Your task to perform on an android device: Search for "bose soundlink" on newegg.com, select the first entry, and add it to the cart. Image 0: 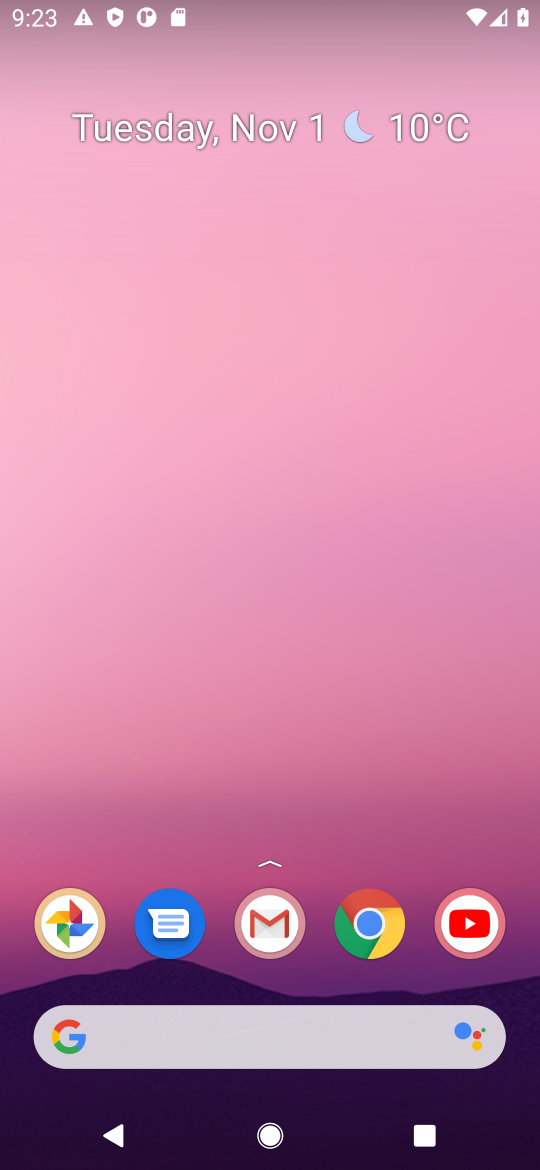
Step 0: drag from (309, 905) to (281, 160)
Your task to perform on an android device: Search for "bose soundlink" on newegg.com, select the first entry, and add it to the cart. Image 1: 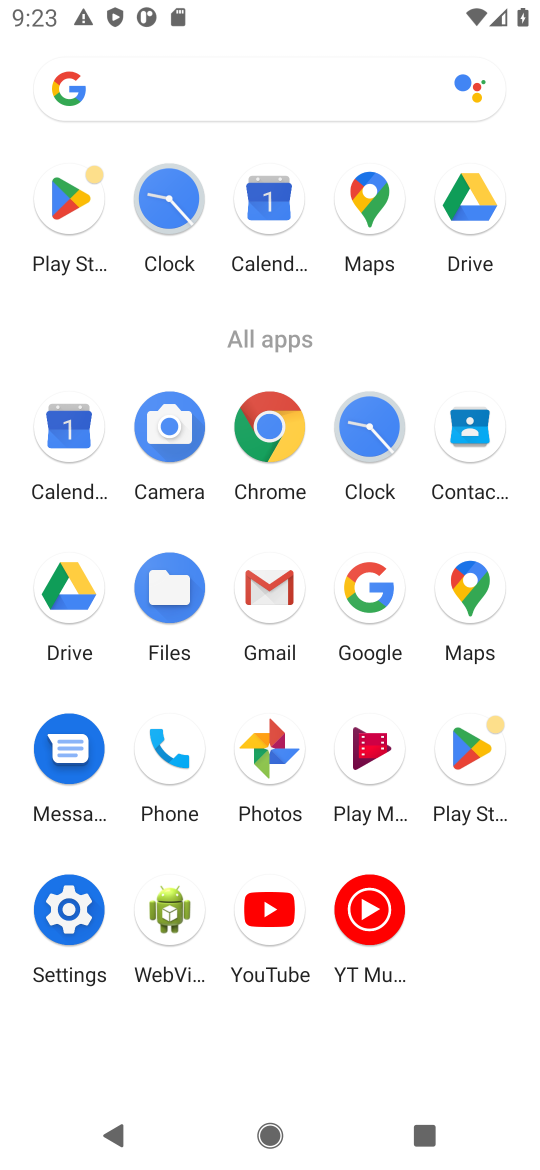
Step 1: click (263, 424)
Your task to perform on an android device: Search for "bose soundlink" on newegg.com, select the first entry, and add it to the cart. Image 2: 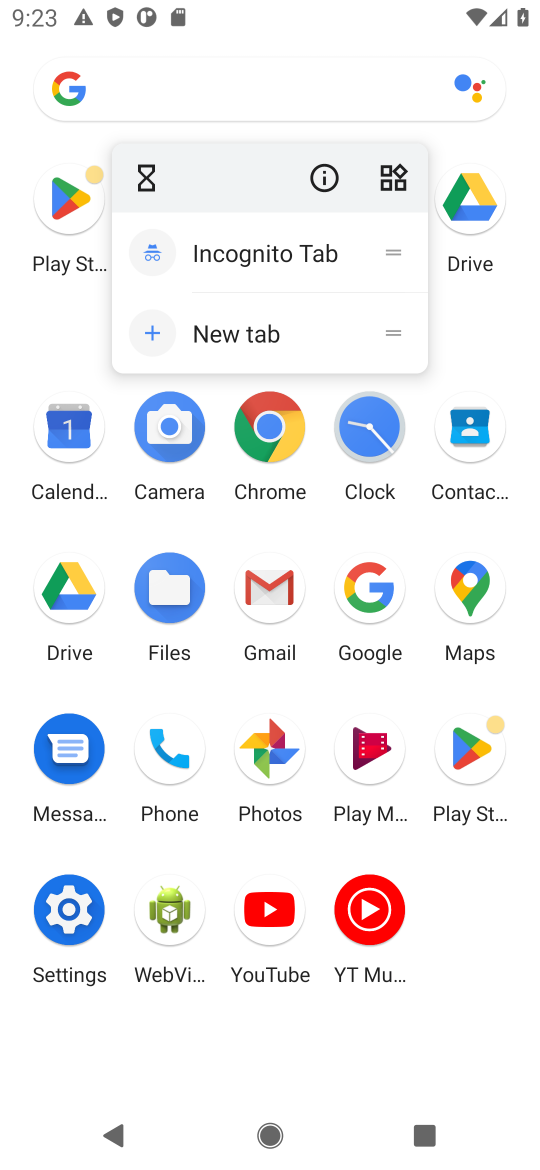
Step 2: click (271, 434)
Your task to perform on an android device: Search for "bose soundlink" on newegg.com, select the first entry, and add it to the cart. Image 3: 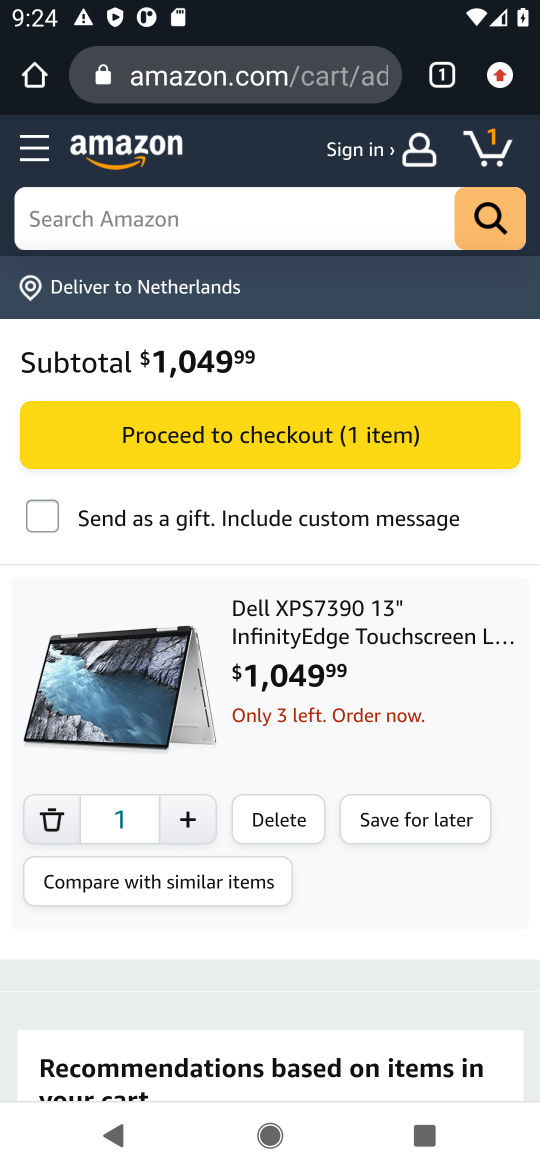
Step 3: click (262, 64)
Your task to perform on an android device: Search for "bose soundlink" on newegg.com, select the first entry, and add it to the cart. Image 4: 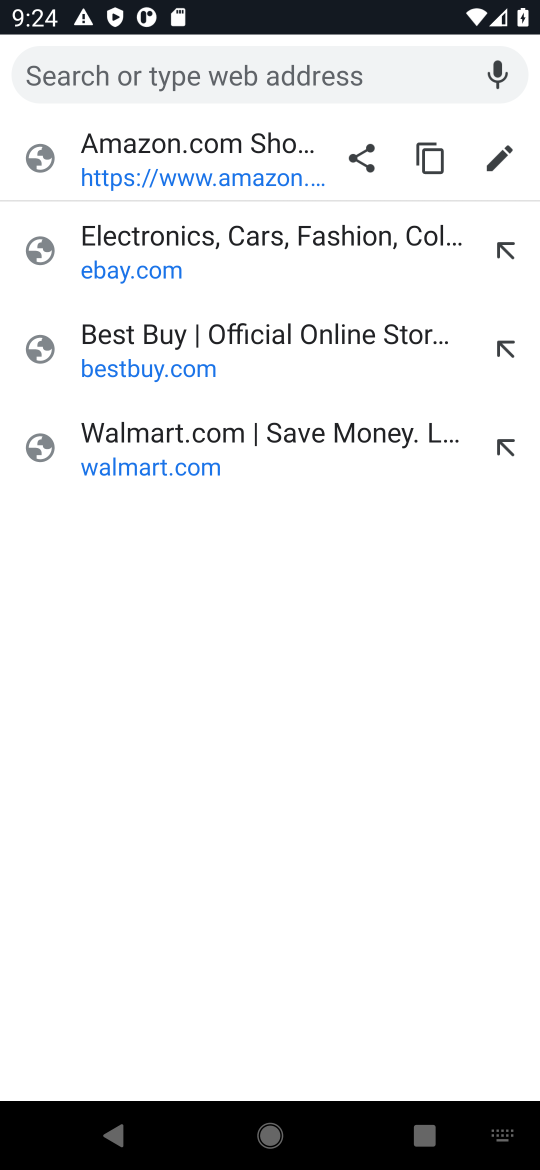
Step 4: type "newegg.com"
Your task to perform on an android device: Search for "bose soundlink" on newegg.com, select the first entry, and add it to the cart. Image 5: 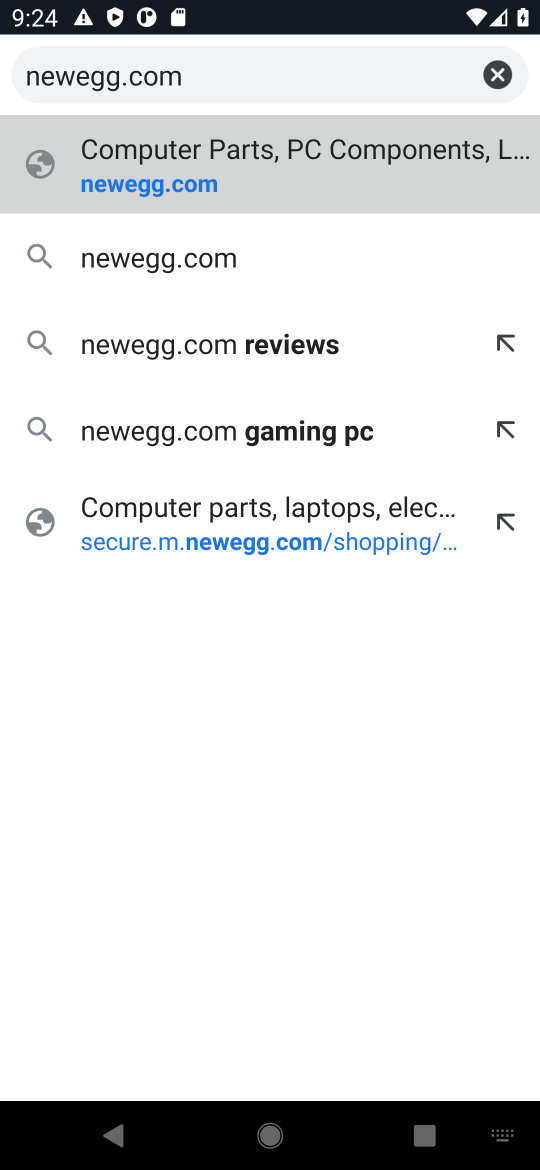
Step 5: press enter
Your task to perform on an android device: Search for "bose soundlink" on newegg.com, select the first entry, and add it to the cart. Image 6: 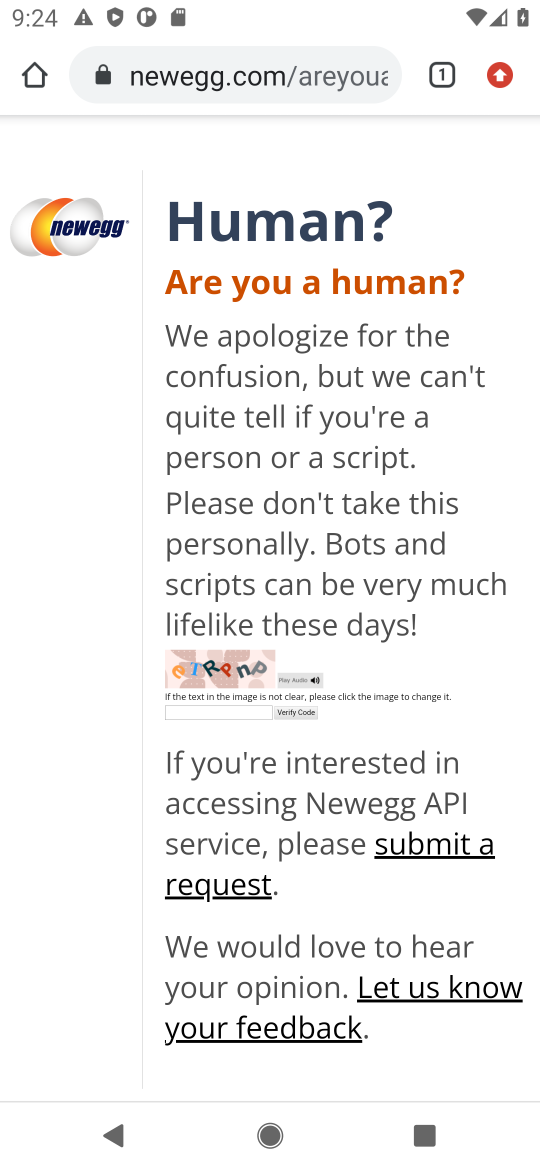
Step 6: click (232, 719)
Your task to perform on an android device: Search for "bose soundlink" on newegg.com, select the first entry, and add it to the cart. Image 7: 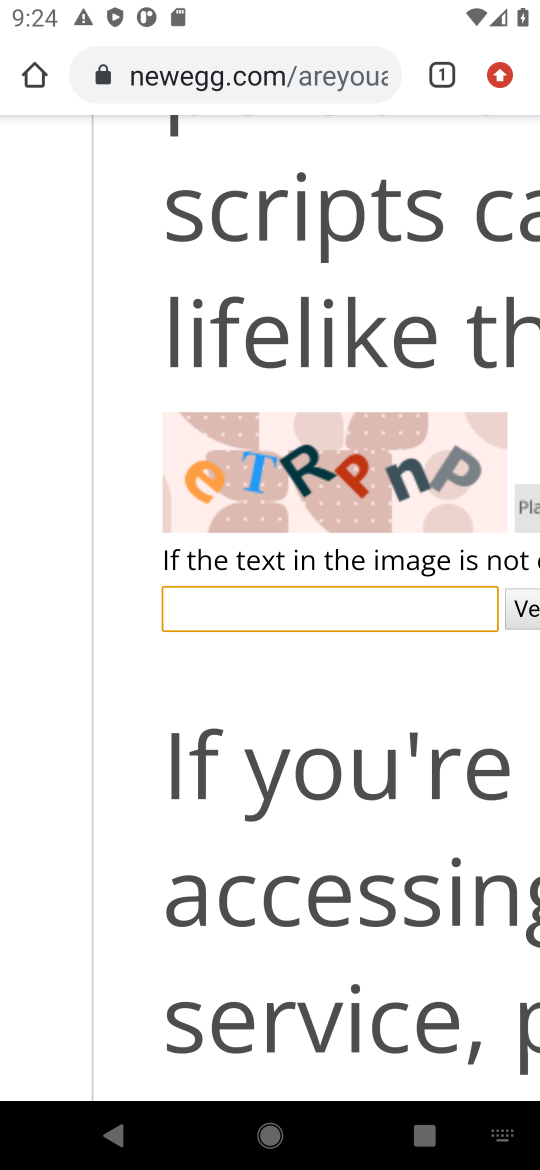
Step 7: type "eTRPnP"
Your task to perform on an android device: Search for "bose soundlink" on newegg.com, select the first entry, and add it to the cart. Image 8: 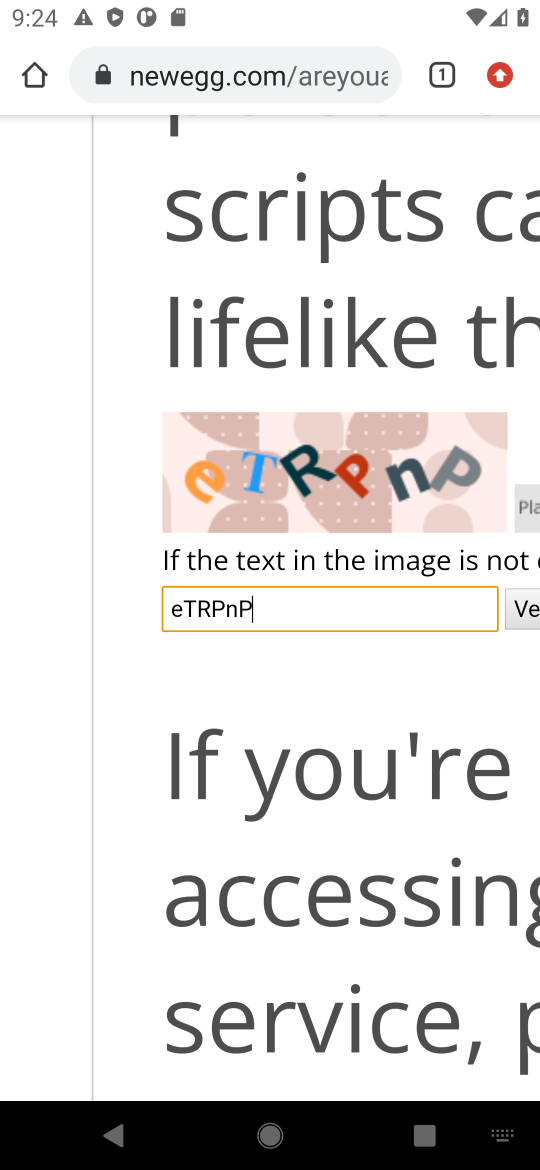
Step 8: press enter
Your task to perform on an android device: Search for "bose soundlink" on newegg.com, select the first entry, and add it to the cart. Image 9: 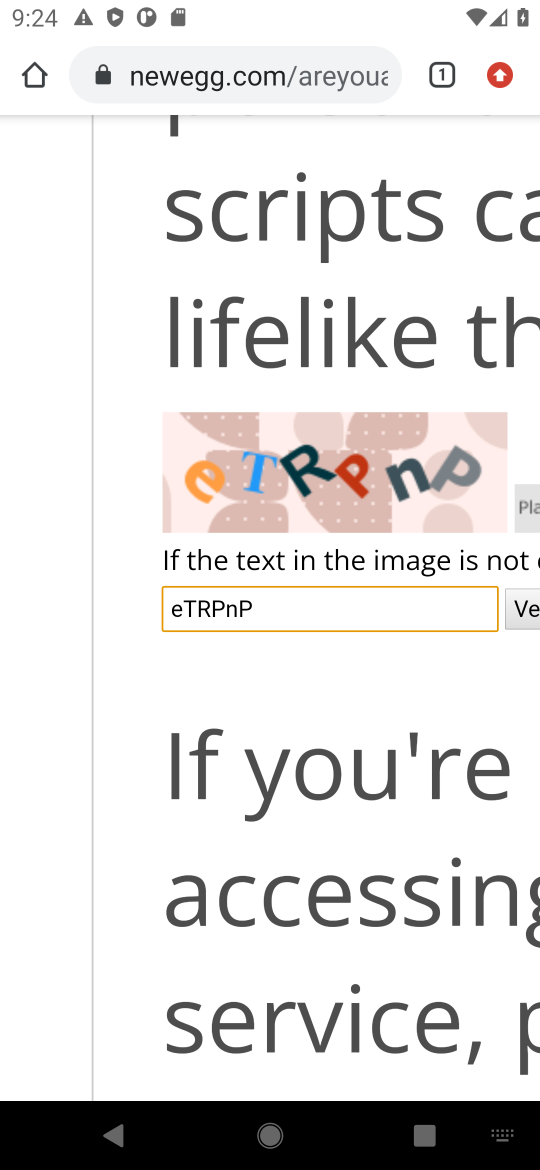
Step 9: click (517, 605)
Your task to perform on an android device: Search for "bose soundlink" on newegg.com, select the first entry, and add it to the cart. Image 10: 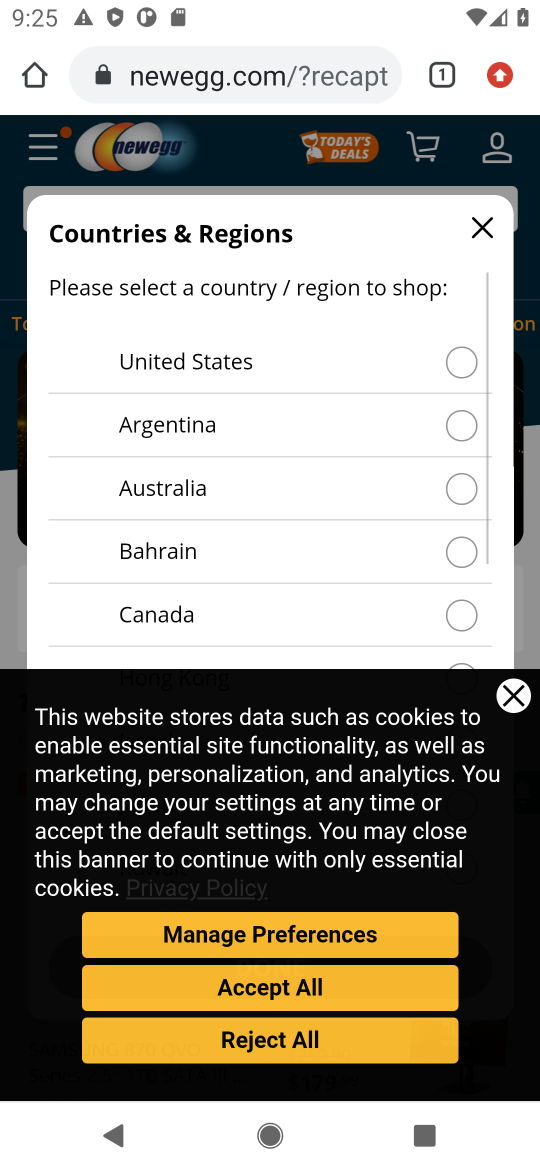
Step 10: click (378, 223)
Your task to perform on an android device: Search for "bose soundlink" on newegg.com, select the first entry, and add it to the cart. Image 11: 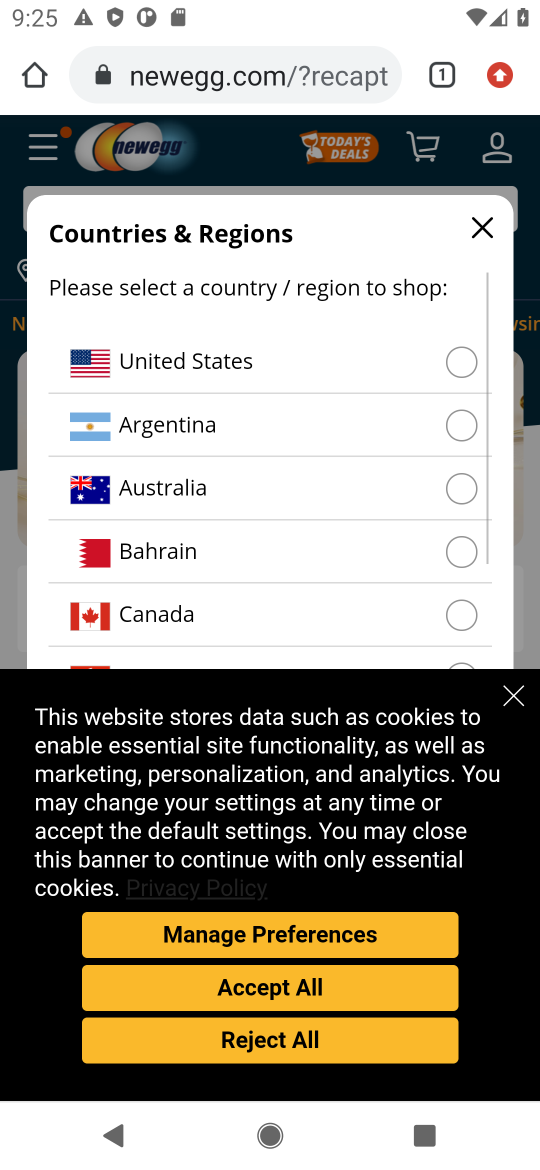
Step 11: click (491, 226)
Your task to perform on an android device: Search for "bose soundlink" on newegg.com, select the first entry, and add it to the cart. Image 12: 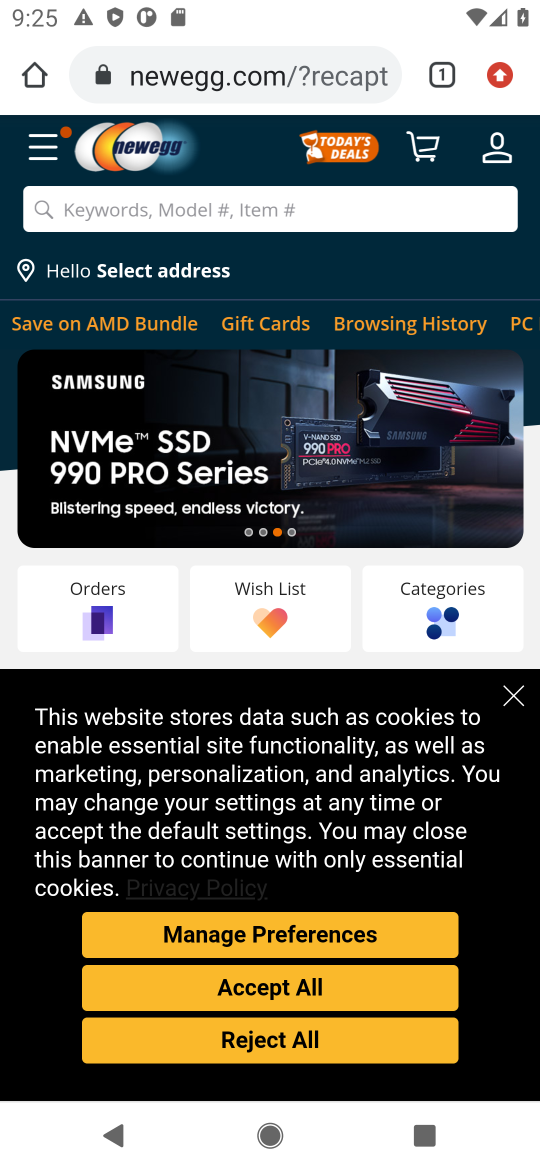
Step 12: click (418, 205)
Your task to perform on an android device: Search for "bose soundlink" on newegg.com, select the first entry, and add it to the cart. Image 13: 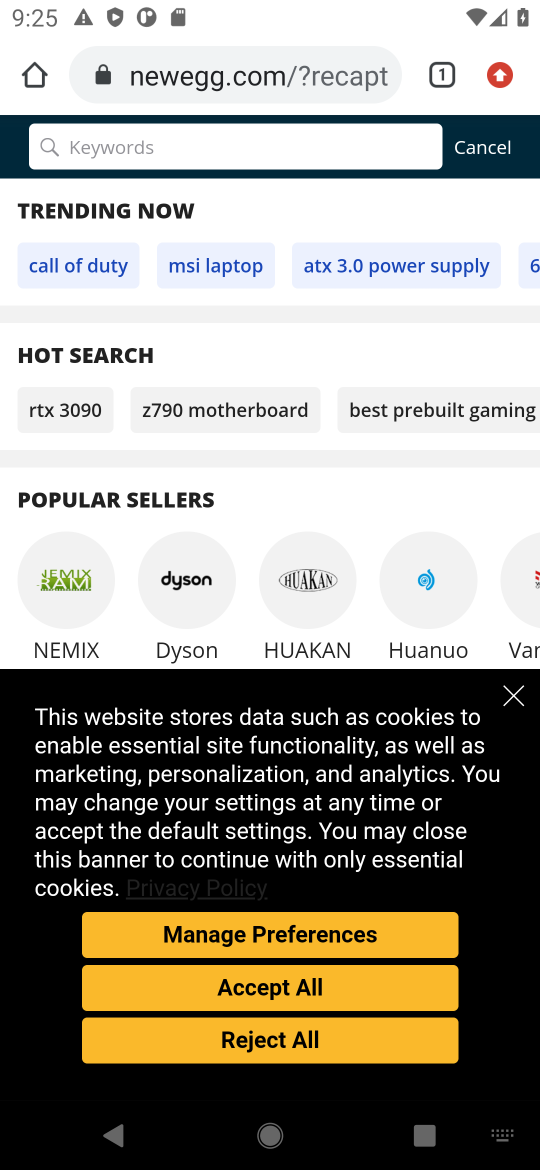
Step 13: type "bose soundlink"
Your task to perform on an android device: Search for "bose soundlink" on newegg.com, select the first entry, and add it to the cart. Image 14: 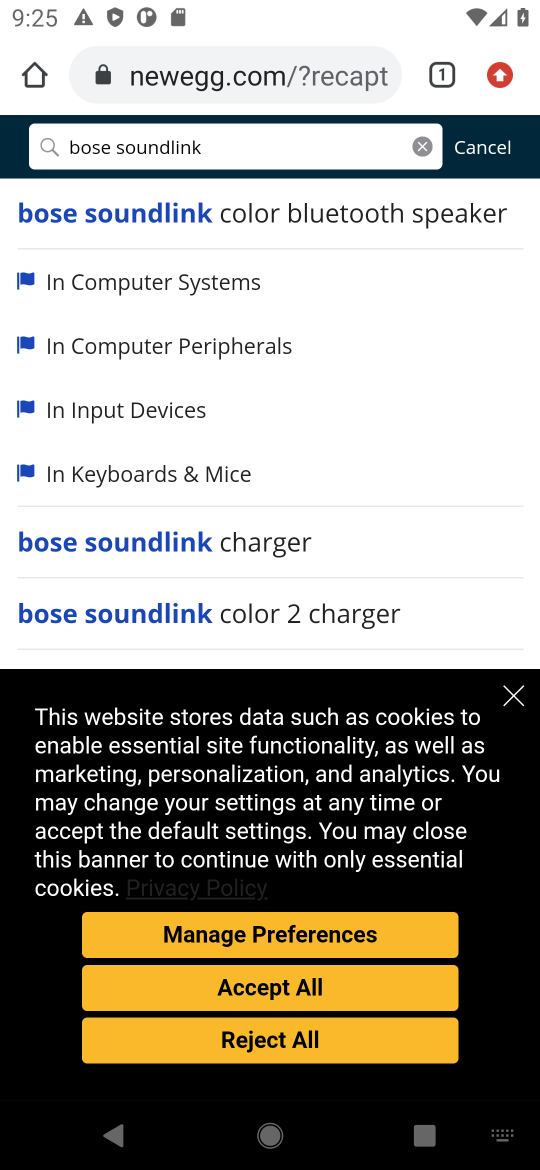
Step 14: press enter
Your task to perform on an android device: Search for "bose soundlink" on newegg.com, select the first entry, and add it to the cart. Image 15: 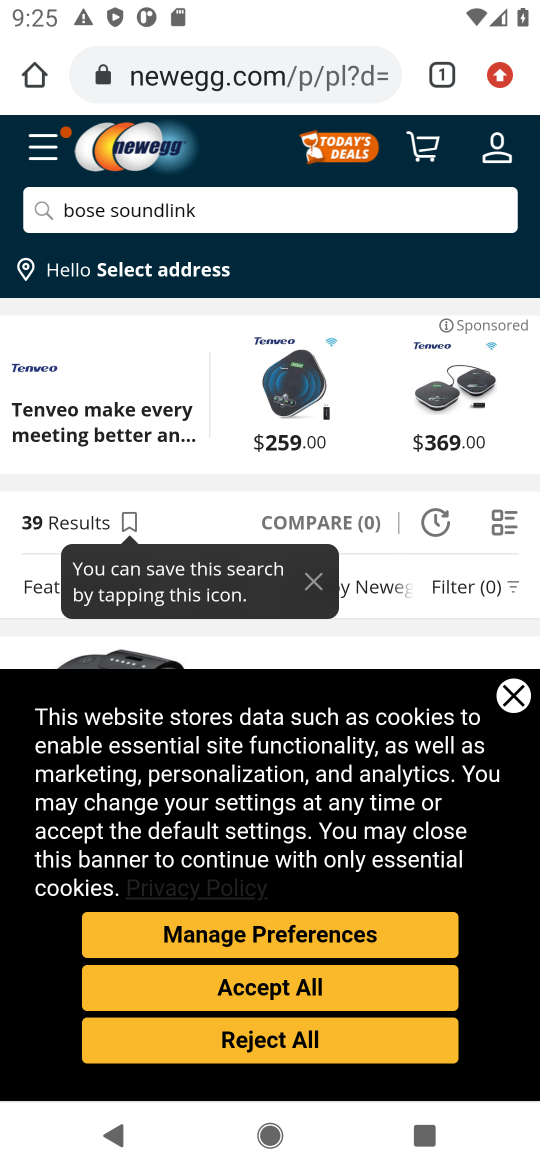
Step 15: click (512, 691)
Your task to perform on an android device: Search for "bose soundlink" on newegg.com, select the first entry, and add it to the cart. Image 16: 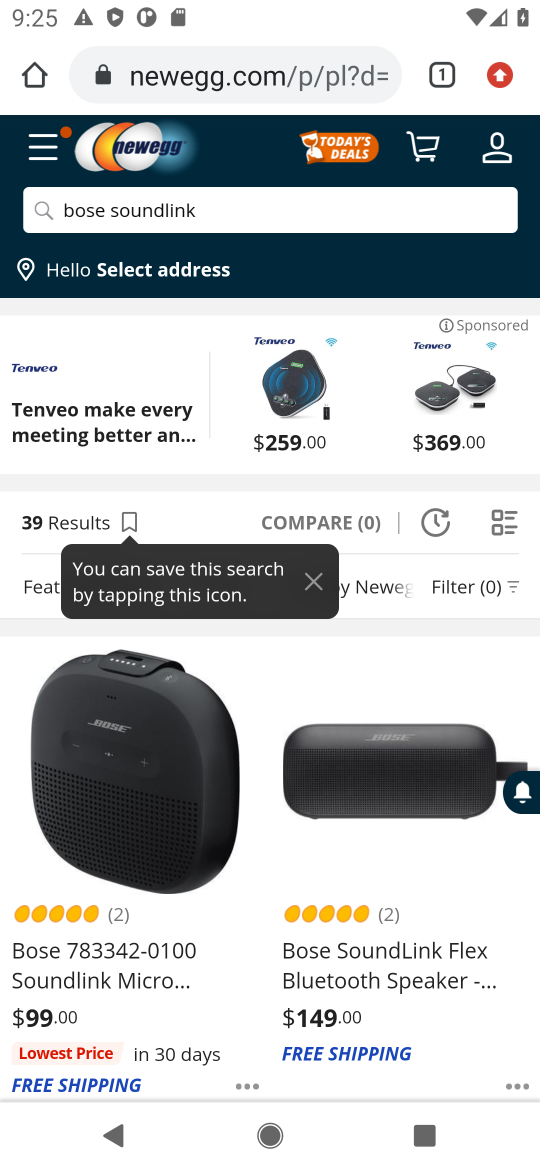
Step 16: click (419, 984)
Your task to perform on an android device: Search for "bose soundlink" on newegg.com, select the first entry, and add it to the cart. Image 17: 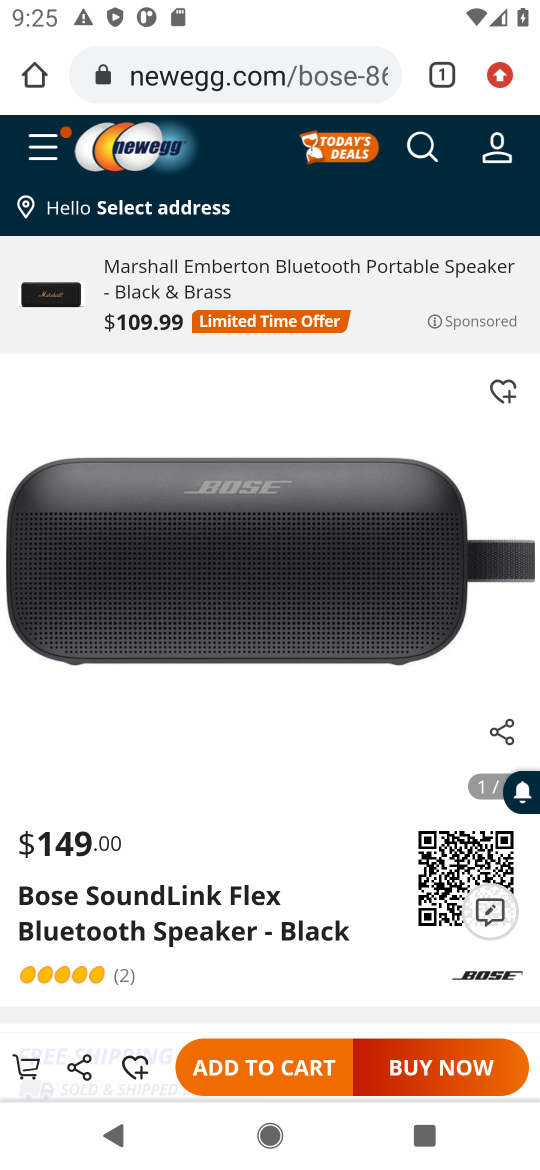
Step 17: click (234, 1055)
Your task to perform on an android device: Search for "bose soundlink" on newegg.com, select the first entry, and add it to the cart. Image 18: 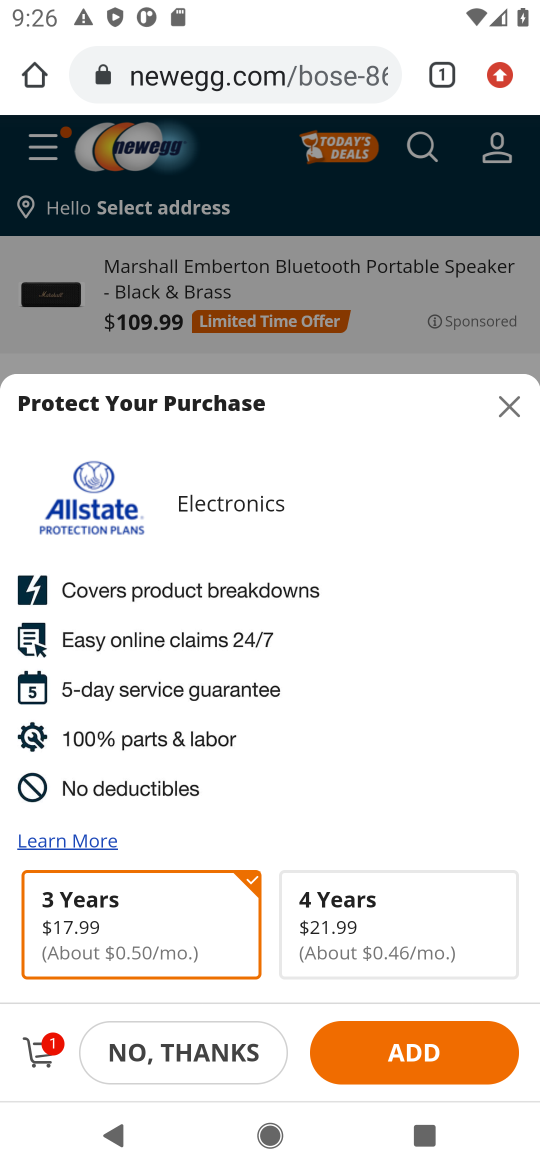
Step 18: task complete